Your task to perform on an android device: Go to network settings Image 0: 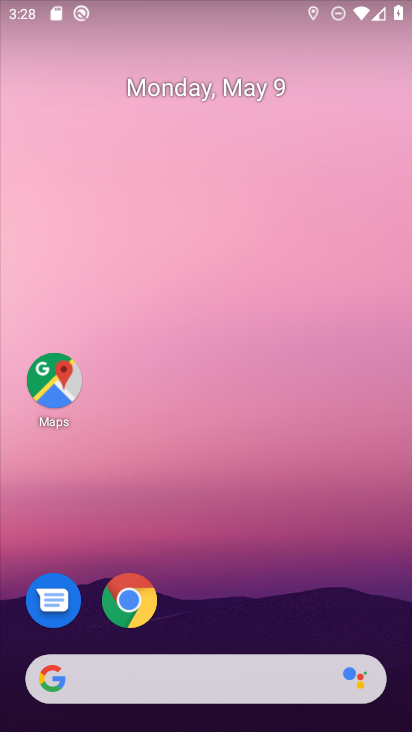
Step 0: drag from (219, 631) to (334, 78)
Your task to perform on an android device: Go to network settings Image 1: 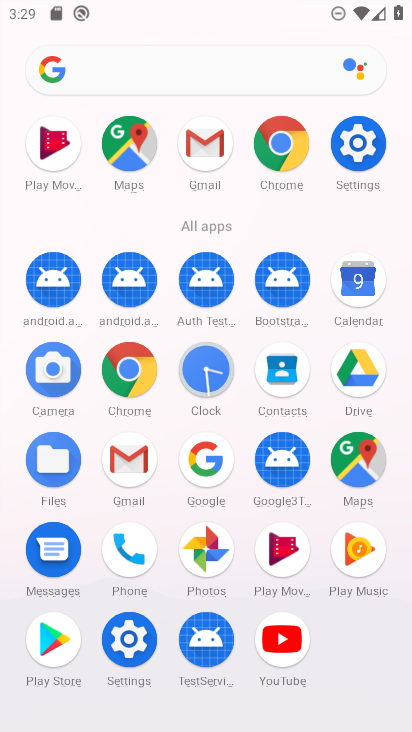
Step 1: click (139, 648)
Your task to perform on an android device: Go to network settings Image 2: 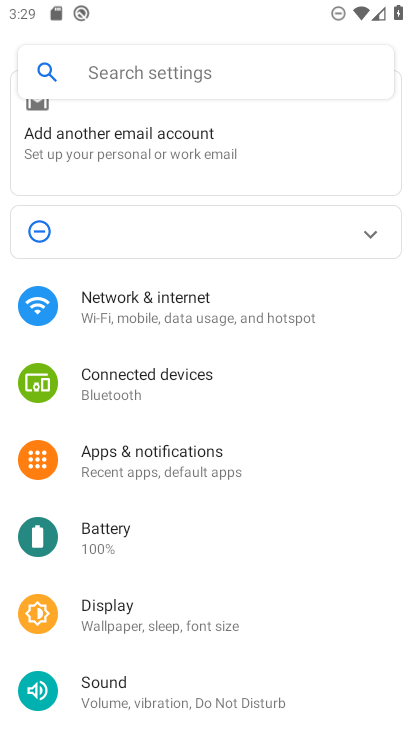
Step 2: click (158, 320)
Your task to perform on an android device: Go to network settings Image 3: 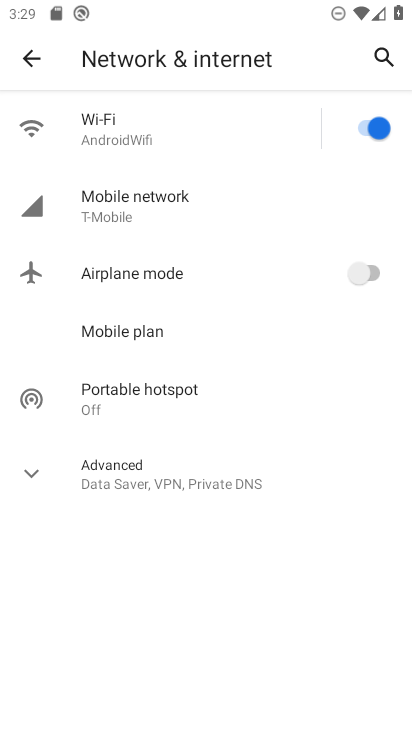
Step 3: task complete